Your task to perform on an android device: Check the weather Image 0: 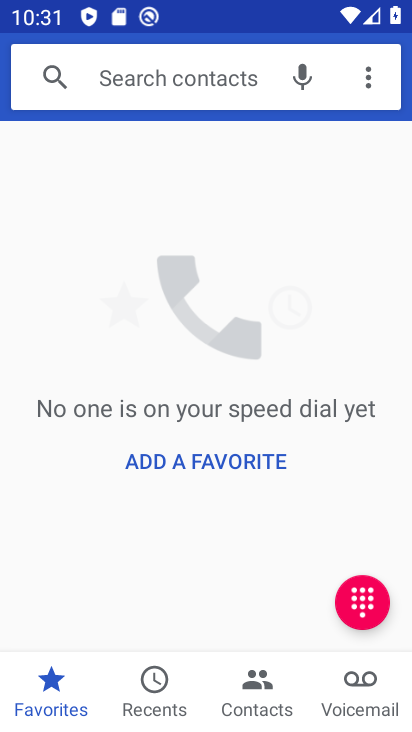
Step 0: press home button
Your task to perform on an android device: Check the weather Image 1: 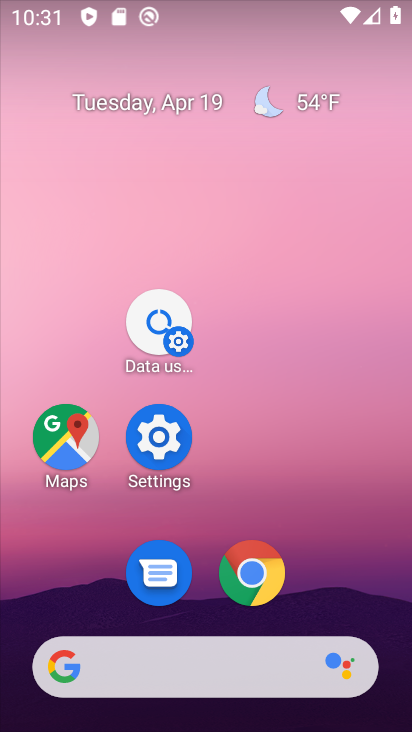
Step 1: drag from (404, 194) to (403, 125)
Your task to perform on an android device: Check the weather Image 2: 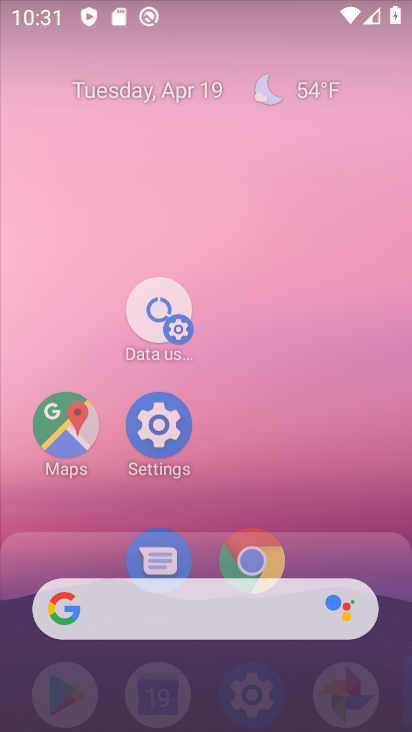
Step 2: click (322, 103)
Your task to perform on an android device: Check the weather Image 3: 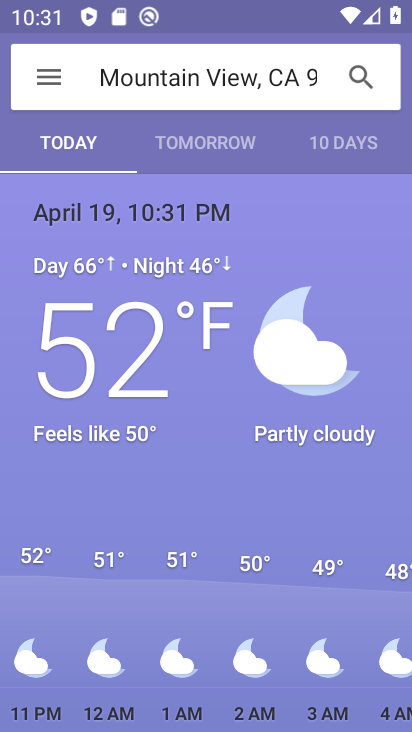
Step 3: task complete